Your task to perform on an android device: What is the recent news? Image 0: 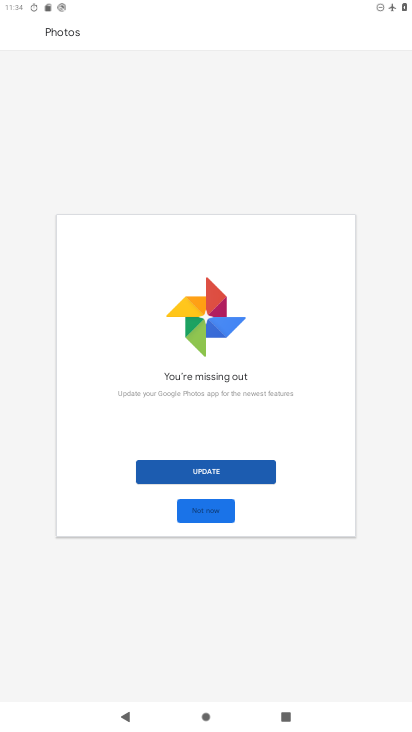
Step 0: press home button
Your task to perform on an android device: What is the recent news? Image 1: 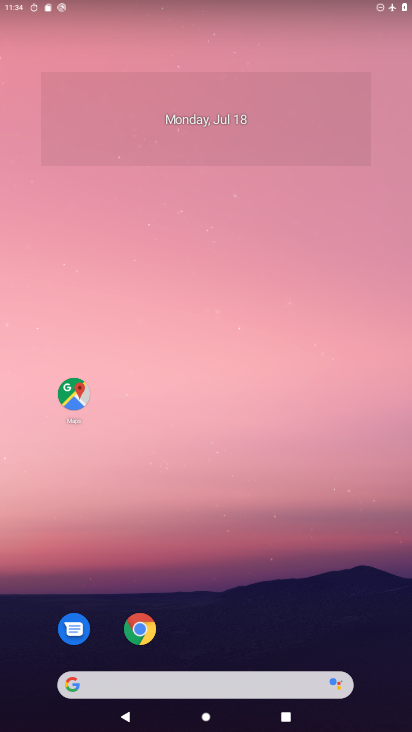
Step 1: drag from (271, 453) to (229, 47)
Your task to perform on an android device: What is the recent news? Image 2: 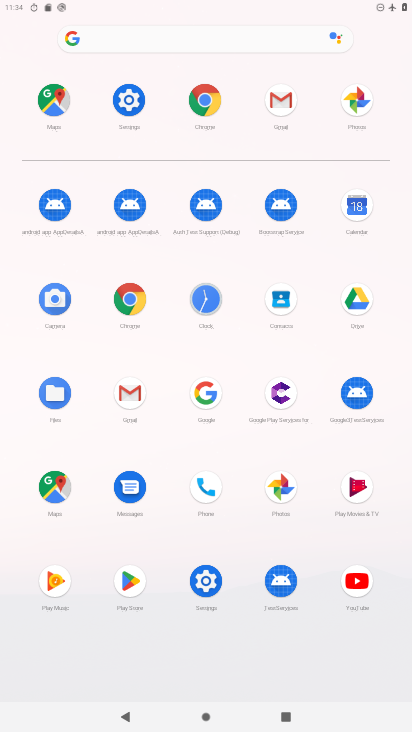
Step 2: click (205, 93)
Your task to perform on an android device: What is the recent news? Image 3: 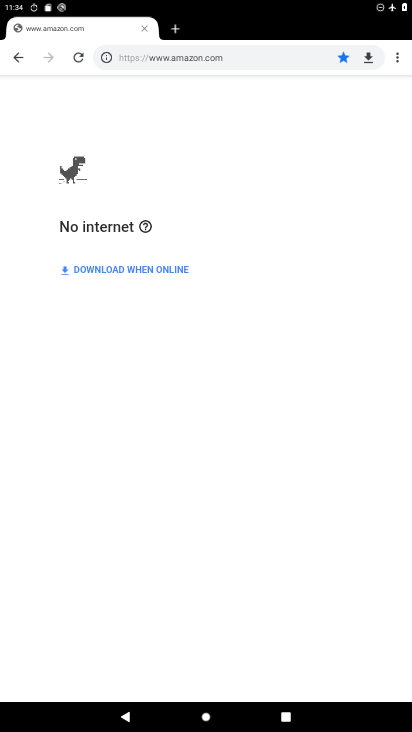
Step 3: click (218, 58)
Your task to perform on an android device: What is the recent news? Image 4: 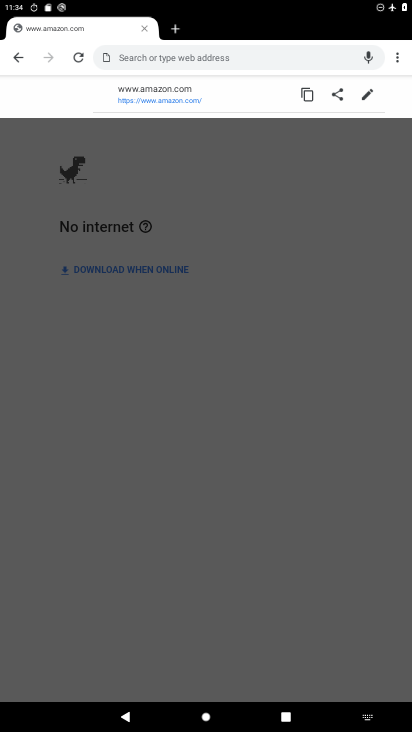
Step 4: type "news"
Your task to perform on an android device: What is the recent news? Image 5: 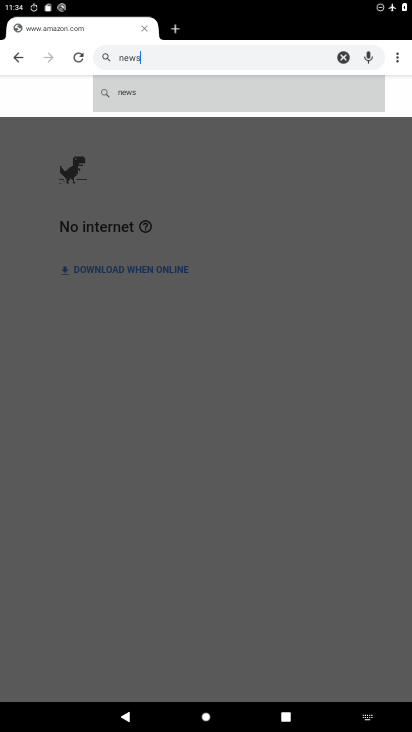
Step 5: click (179, 91)
Your task to perform on an android device: What is the recent news? Image 6: 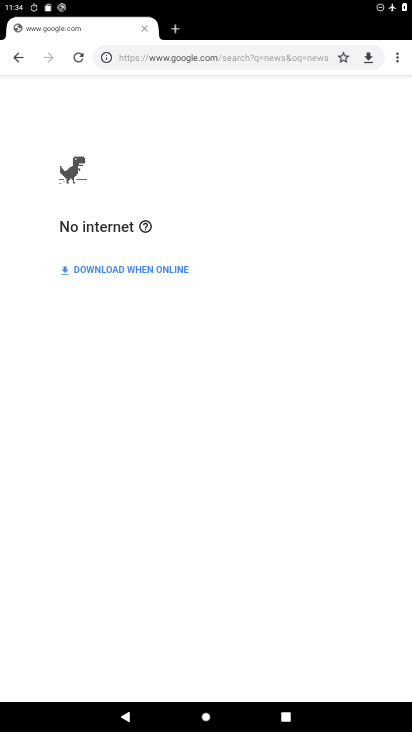
Step 6: task complete